Your task to perform on an android device: turn on sleep mode Image 0: 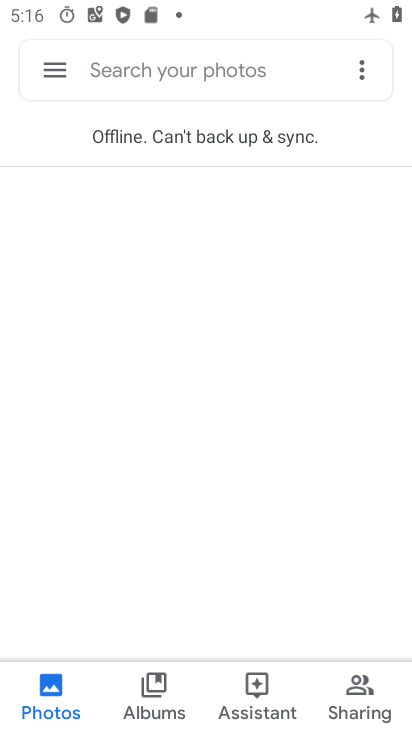
Step 0: press home button
Your task to perform on an android device: turn on sleep mode Image 1: 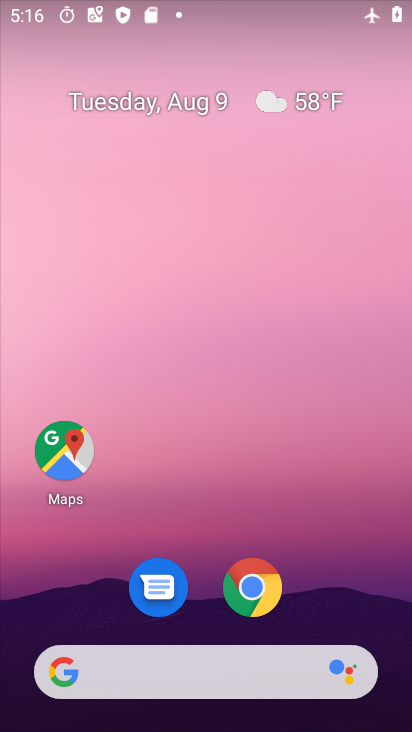
Step 1: drag from (141, 657) to (155, 140)
Your task to perform on an android device: turn on sleep mode Image 2: 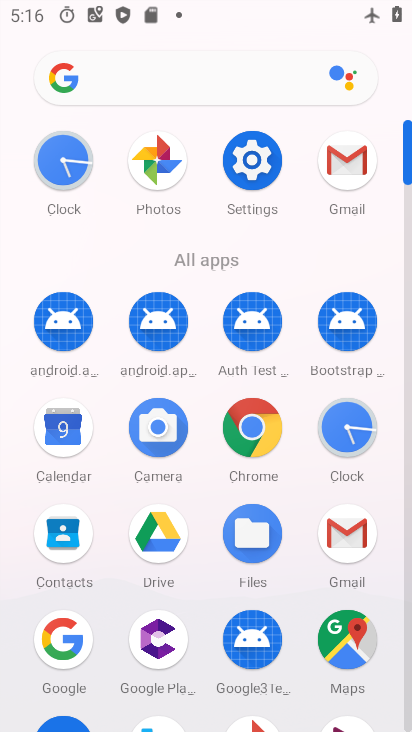
Step 2: click (235, 147)
Your task to perform on an android device: turn on sleep mode Image 3: 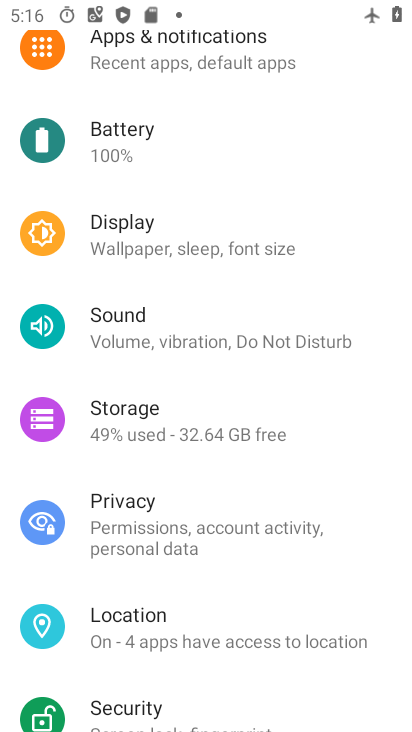
Step 3: click (216, 243)
Your task to perform on an android device: turn on sleep mode Image 4: 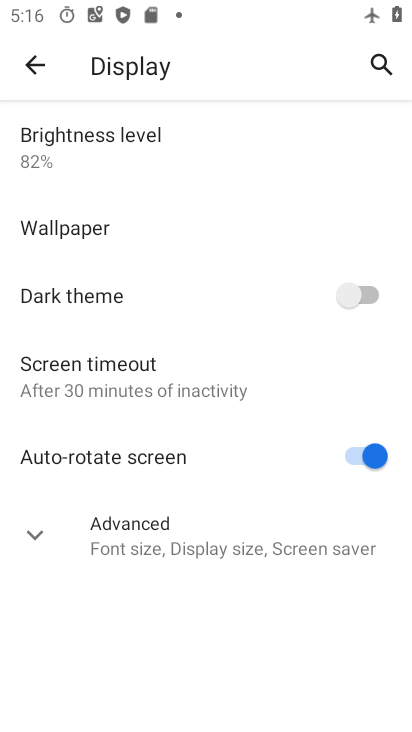
Step 4: click (170, 560)
Your task to perform on an android device: turn on sleep mode Image 5: 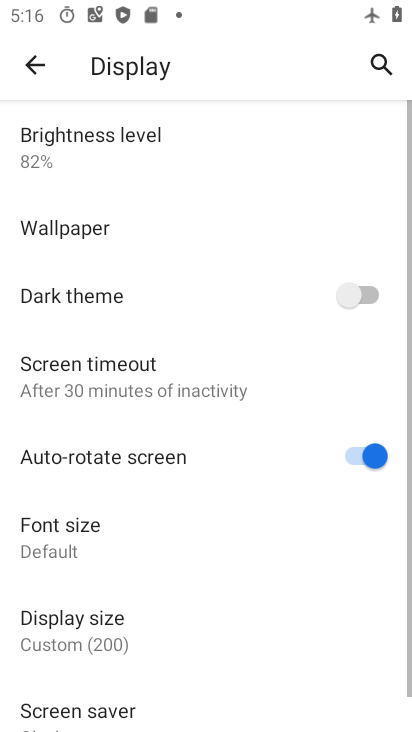
Step 5: task complete